Your task to perform on an android device: empty trash in the gmail app Image 0: 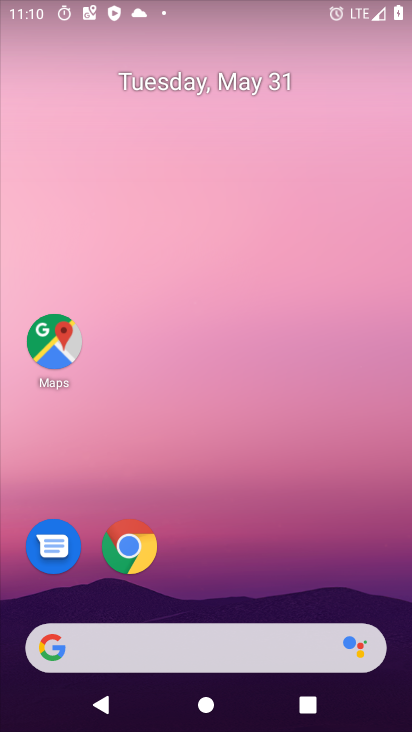
Step 0: drag from (230, 588) to (286, 78)
Your task to perform on an android device: empty trash in the gmail app Image 1: 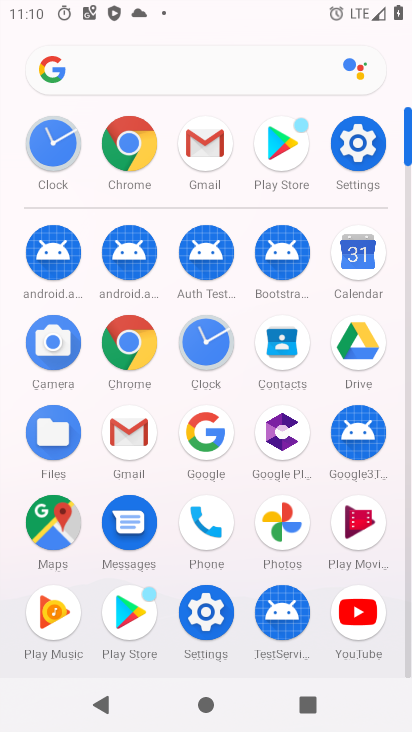
Step 1: click (204, 135)
Your task to perform on an android device: empty trash in the gmail app Image 2: 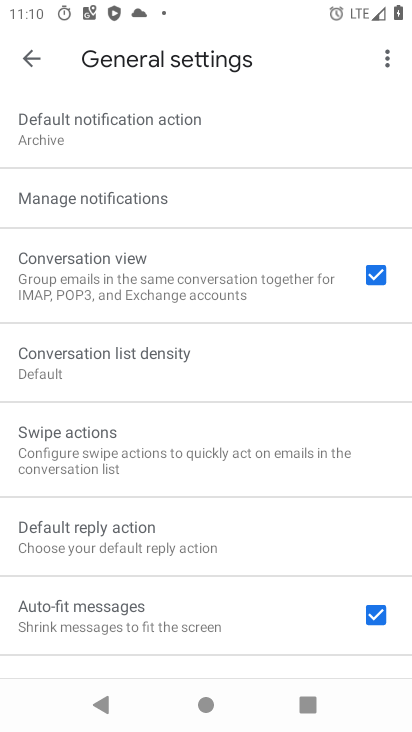
Step 2: press back button
Your task to perform on an android device: empty trash in the gmail app Image 3: 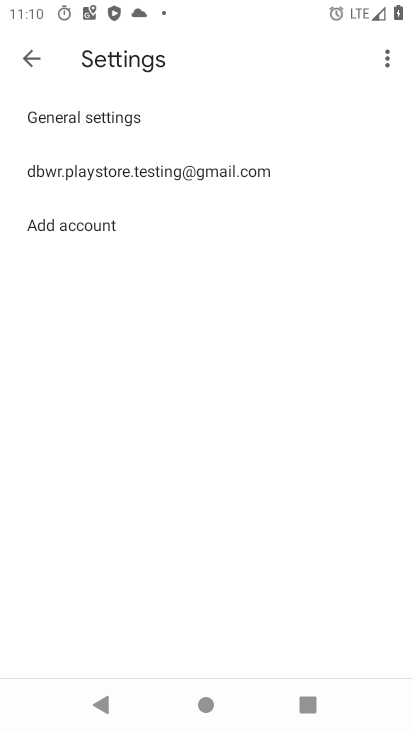
Step 3: click (157, 105)
Your task to perform on an android device: empty trash in the gmail app Image 4: 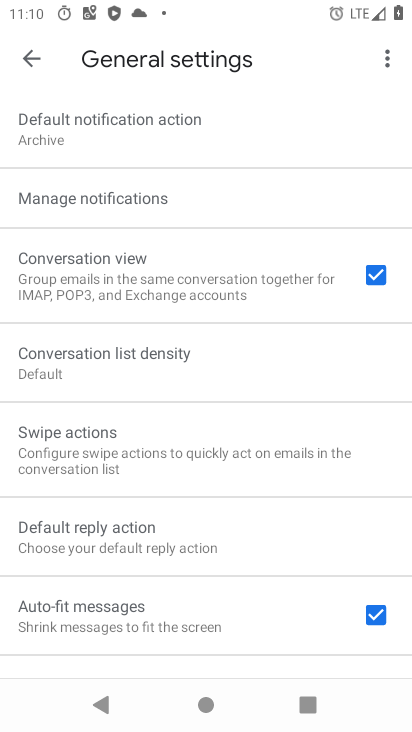
Step 4: drag from (205, 455) to (274, 126)
Your task to perform on an android device: empty trash in the gmail app Image 5: 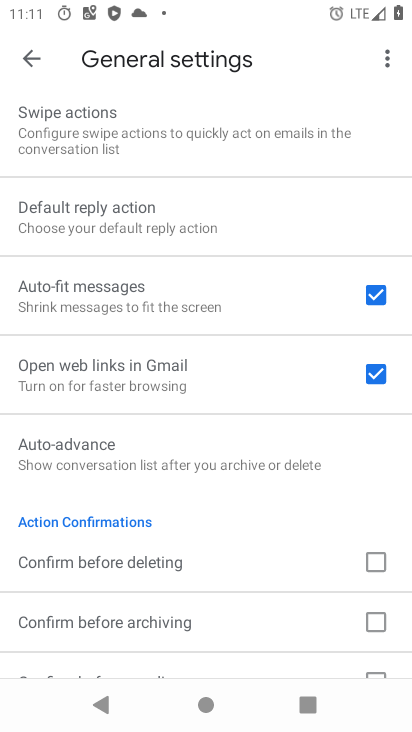
Step 5: drag from (183, 514) to (242, 102)
Your task to perform on an android device: empty trash in the gmail app Image 6: 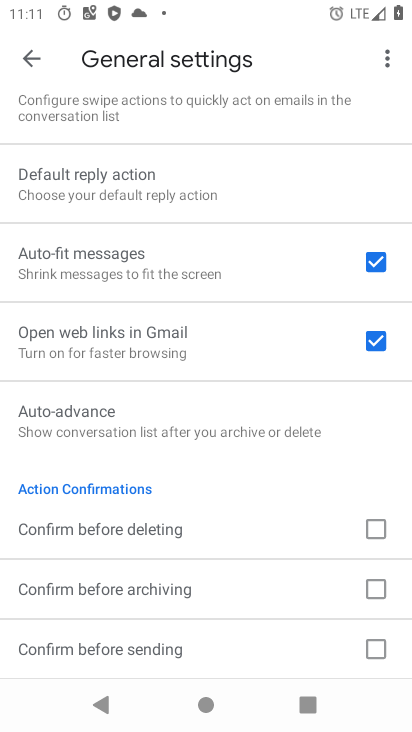
Step 6: drag from (259, 166) to (204, 529)
Your task to perform on an android device: empty trash in the gmail app Image 7: 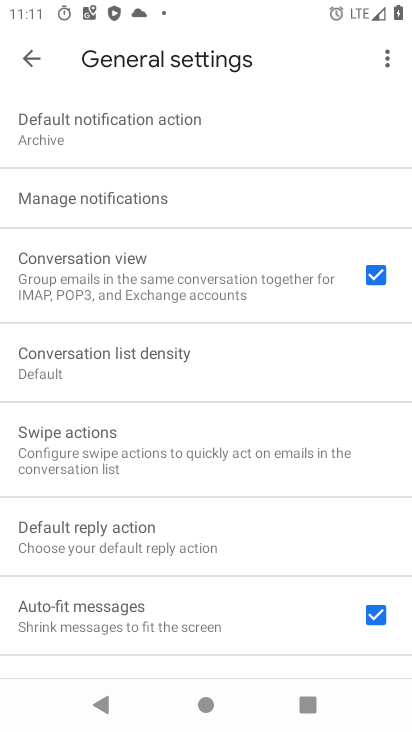
Step 7: drag from (247, 146) to (202, 586)
Your task to perform on an android device: empty trash in the gmail app Image 8: 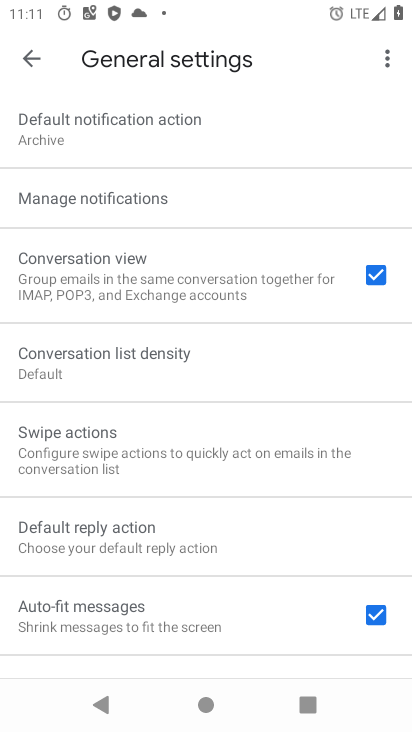
Step 8: drag from (189, 450) to (219, 172)
Your task to perform on an android device: empty trash in the gmail app Image 9: 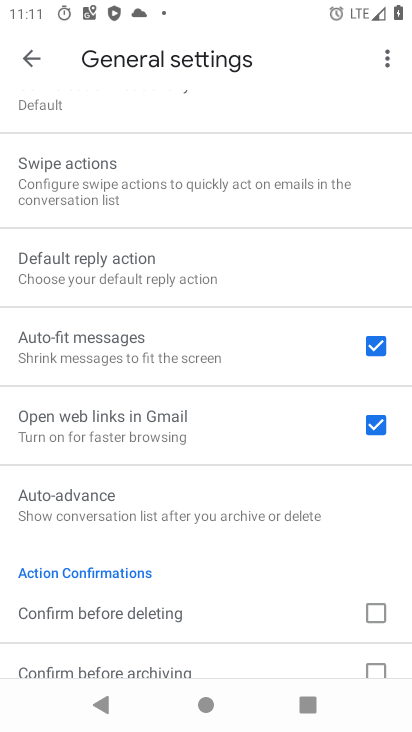
Step 9: click (22, 50)
Your task to perform on an android device: empty trash in the gmail app Image 10: 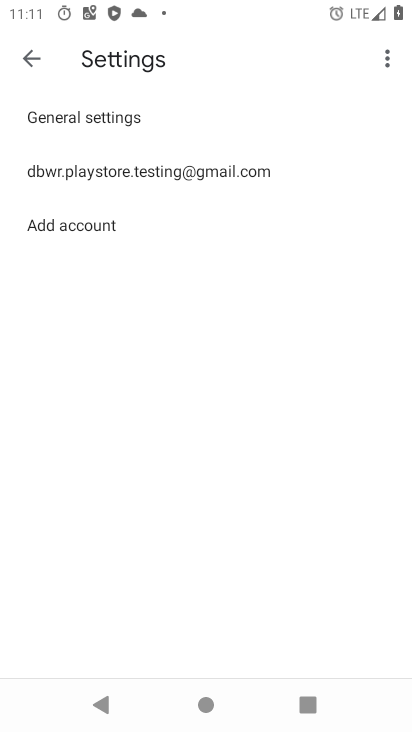
Step 10: click (23, 49)
Your task to perform on an android device: empty trash in the gmail app Image 11: 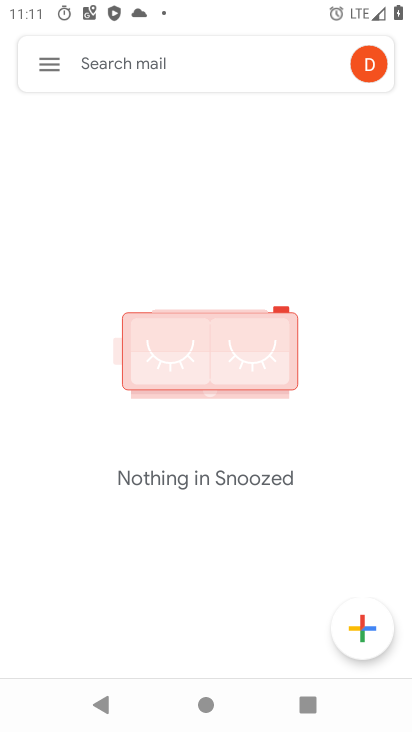
Step 11: click (38, 50)
Your task to perform on an android device: empty trash in the gmail app Image 12: 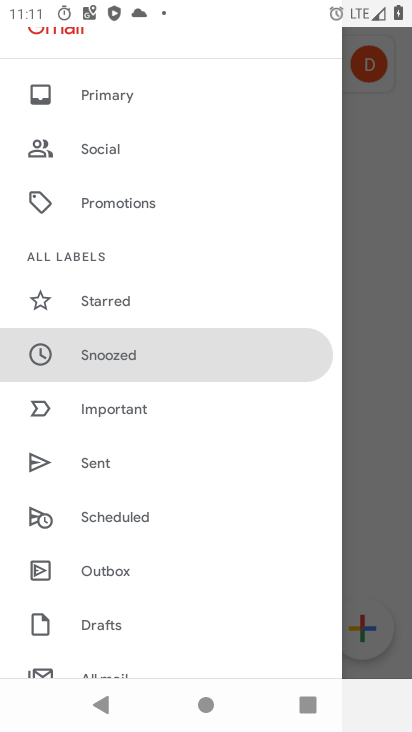
Step 12: drag from (167, 574) to (227, 182)
Your task to perform on an android device: empty trash in the gmail app Image 13: 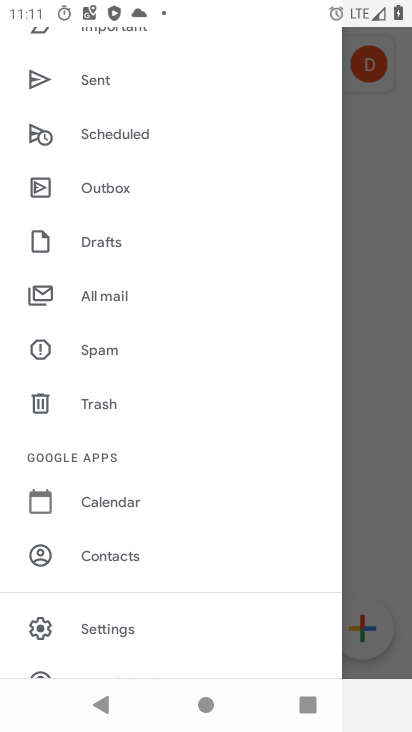
Step 13: click (125, 414)
Your task to perform on an android device: empty trash in the gmail app Image 14: 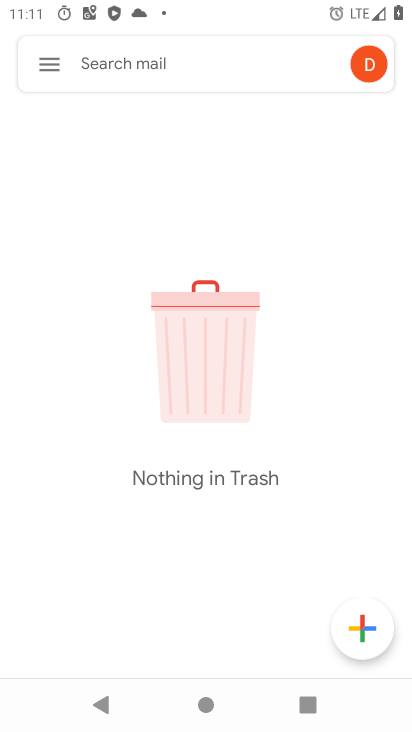
Step 14: task complete